Your task to perform on an android device: Go to accessibility settings Image 0: 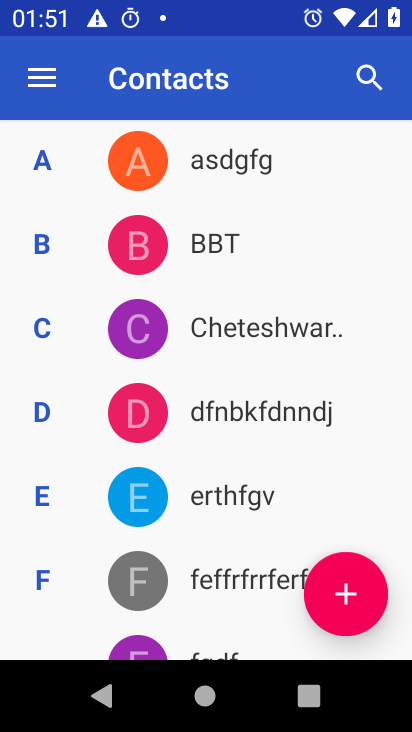
Step 0: press back button
Your task to perform on an android device: Go to accessibility settings Image 1: 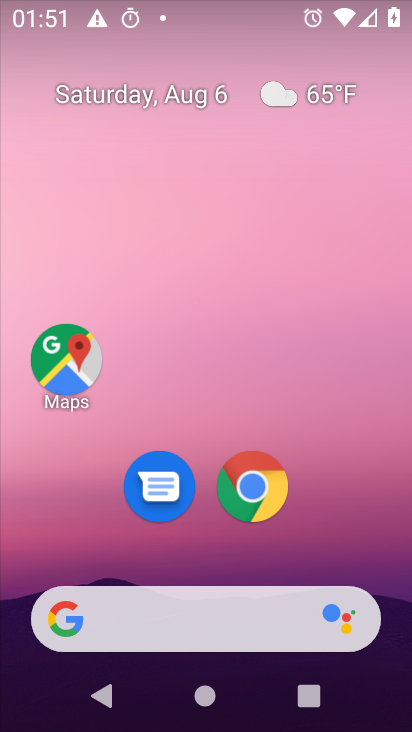
Step 1: drag from (233, 582) to (258, 108)
Your task to perform on an android device: Go to accessibility settings Image 2: 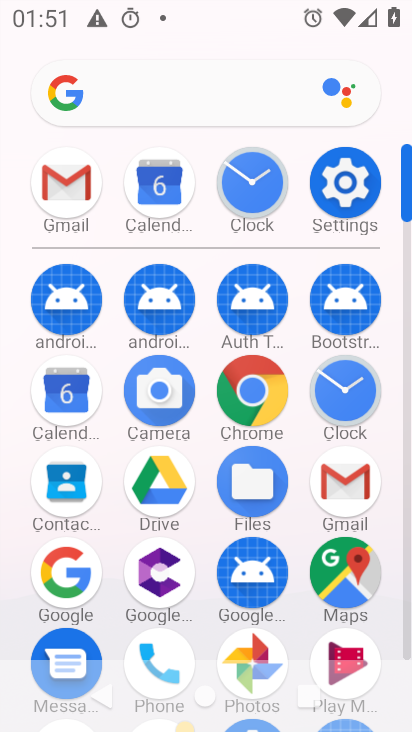
Step 2: click (358, 206)
Your task to perform on an android device: Go to accessibility settings Image 3: 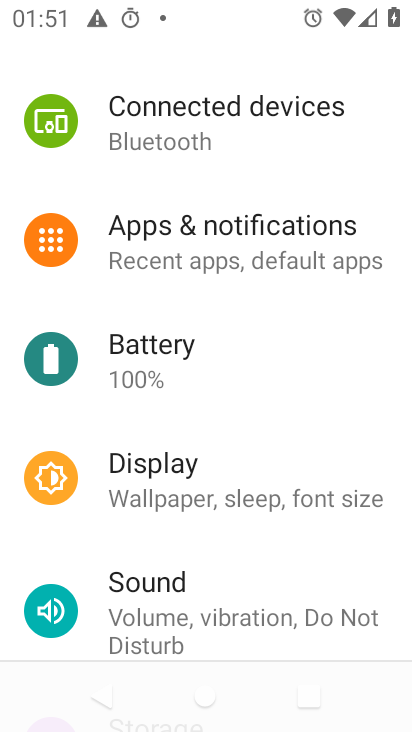
Step 3: drag from (176, 629) to (258, 50)
Your task to perform on an android device: Go to accessibility settings Image 4: 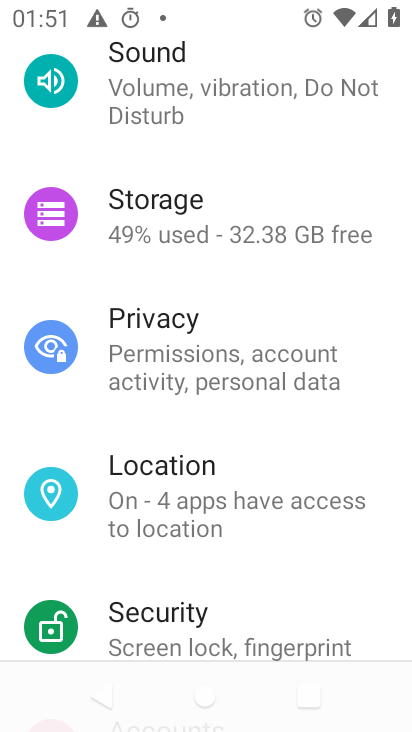
Step 4: drag from (188, 584) to (268, 77)
Your task to perform on an android device: Go to accessibility settings Image 5: 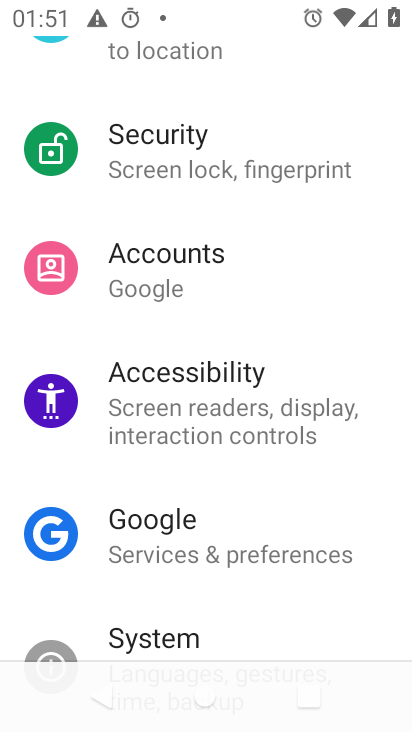
Step 5: click (196, 403)
Your task to perform on an android device: Go to accessibility settings Image 6: 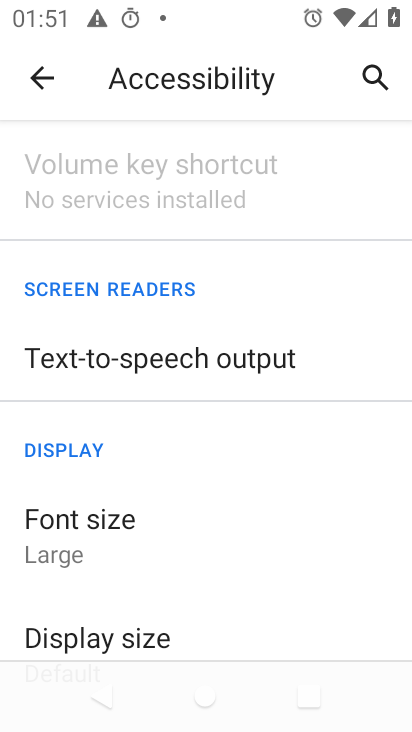
Step 6: task complete